Your task to perform on an android device: turn on data saver in the chrome app Image 0: 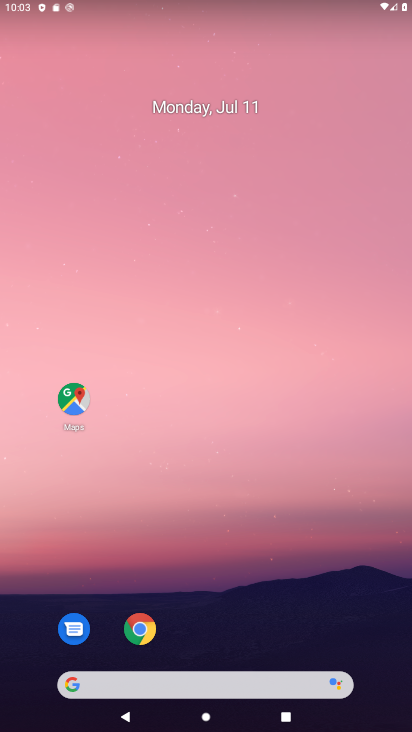
Step 0: click (143, 622)
Your task to perform on an android device: turn on data saver in the chrome app Image 1: 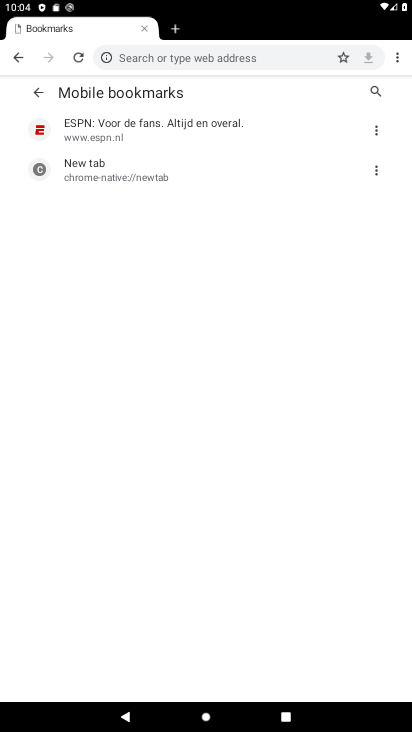
Step 1: click (395, 59)
Your task to perform on an android device: turn on data saver in the chrome app Image 2: 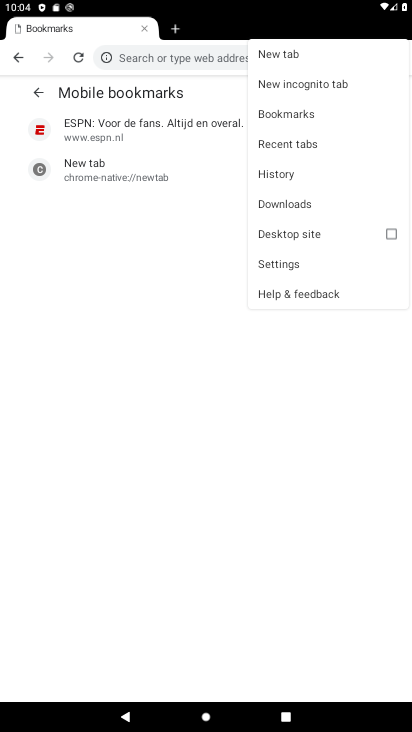
Step 2: click (304, 258)
Your task to perform on an android device: turn on data saver in the chrome app Image 3: 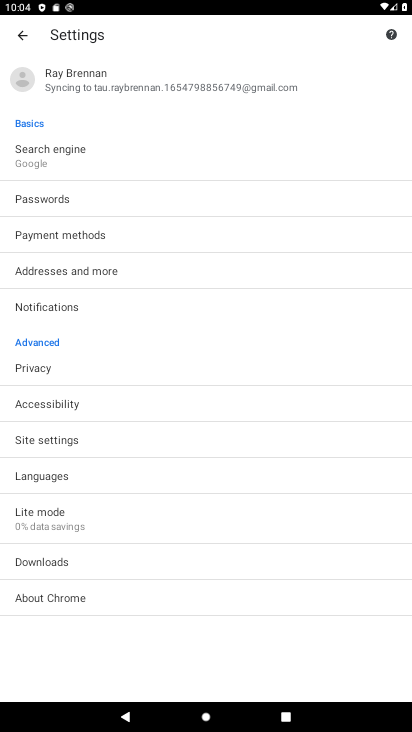
Step 3: click (65, 530)
Your task to perform on an android device: turn on data saver in the chrome app Image 4: 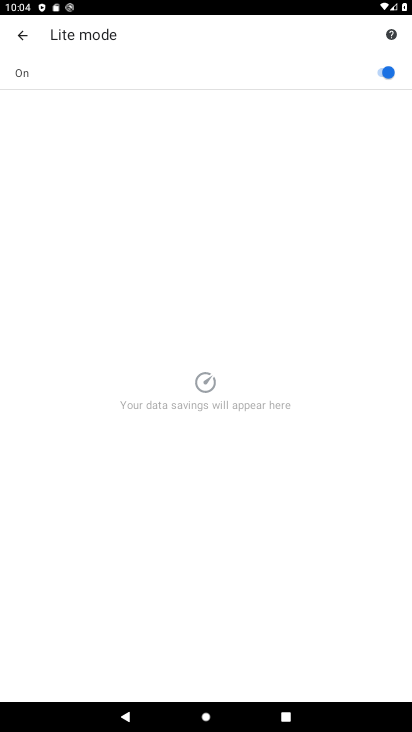
Step 4: task complete